Your task to perform on an android device: move a message to another label in the gmail app Image 0: 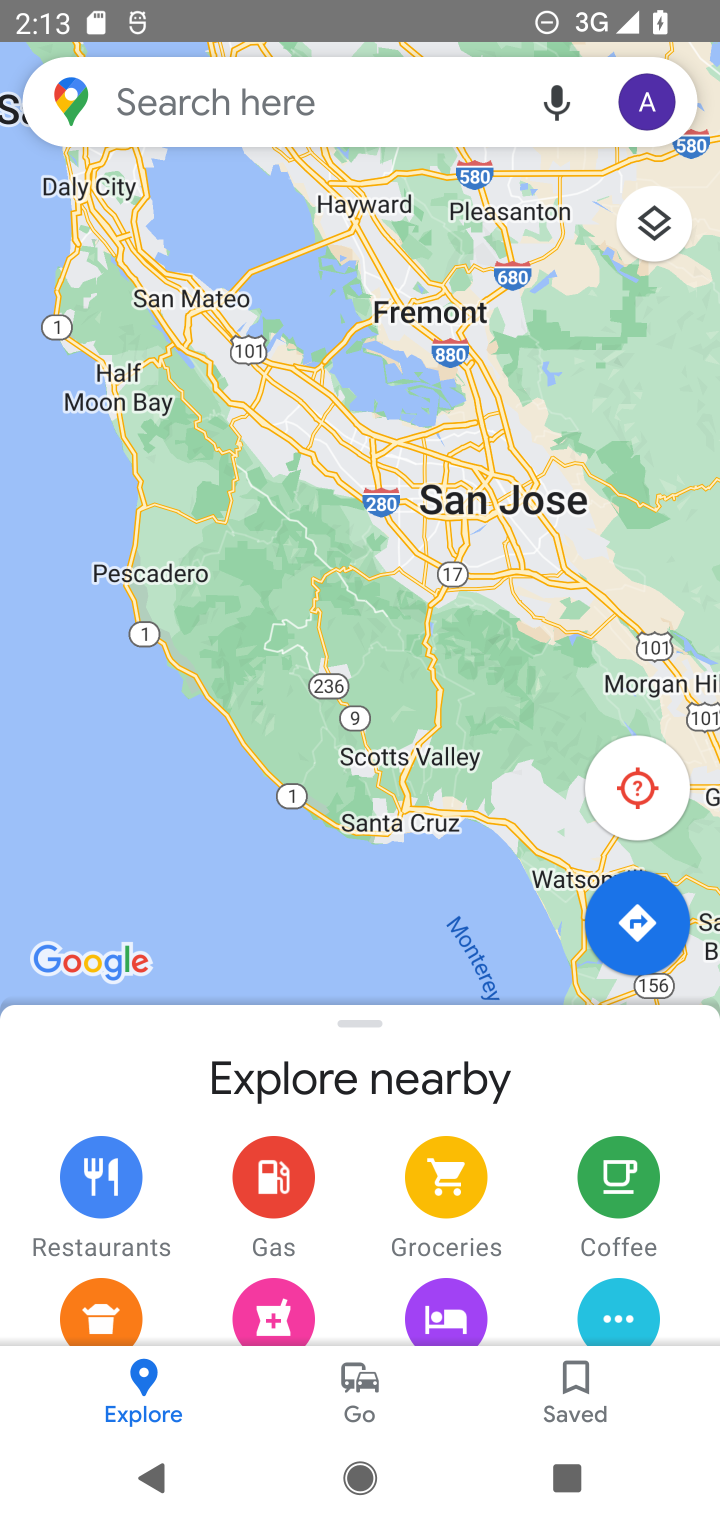
Step 0: press home button
Your task to perform on an android device: move a message to another label in the gmail app Image 1: 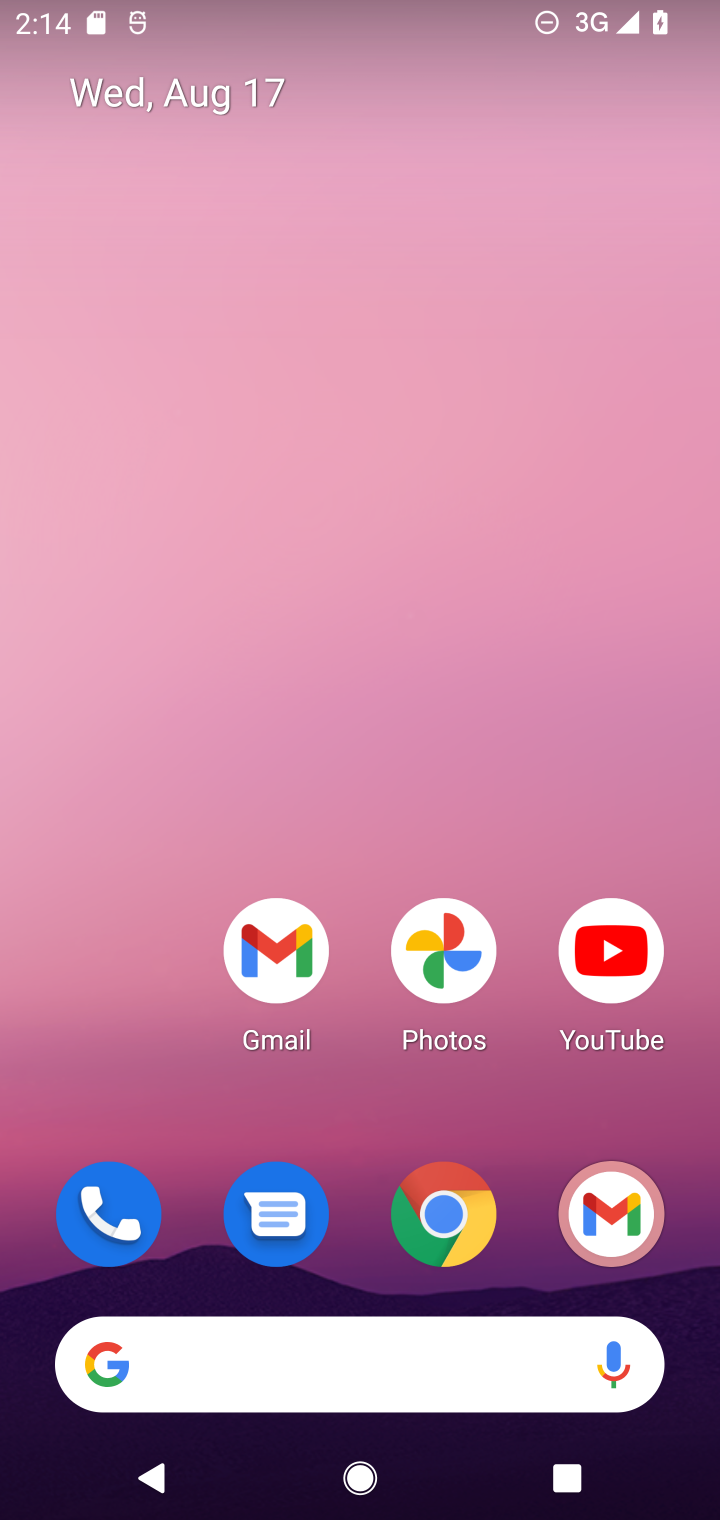
Step 1: click (283, 955)
Your task to perform on an android device: move a message to another label in the gmail app Image 2: 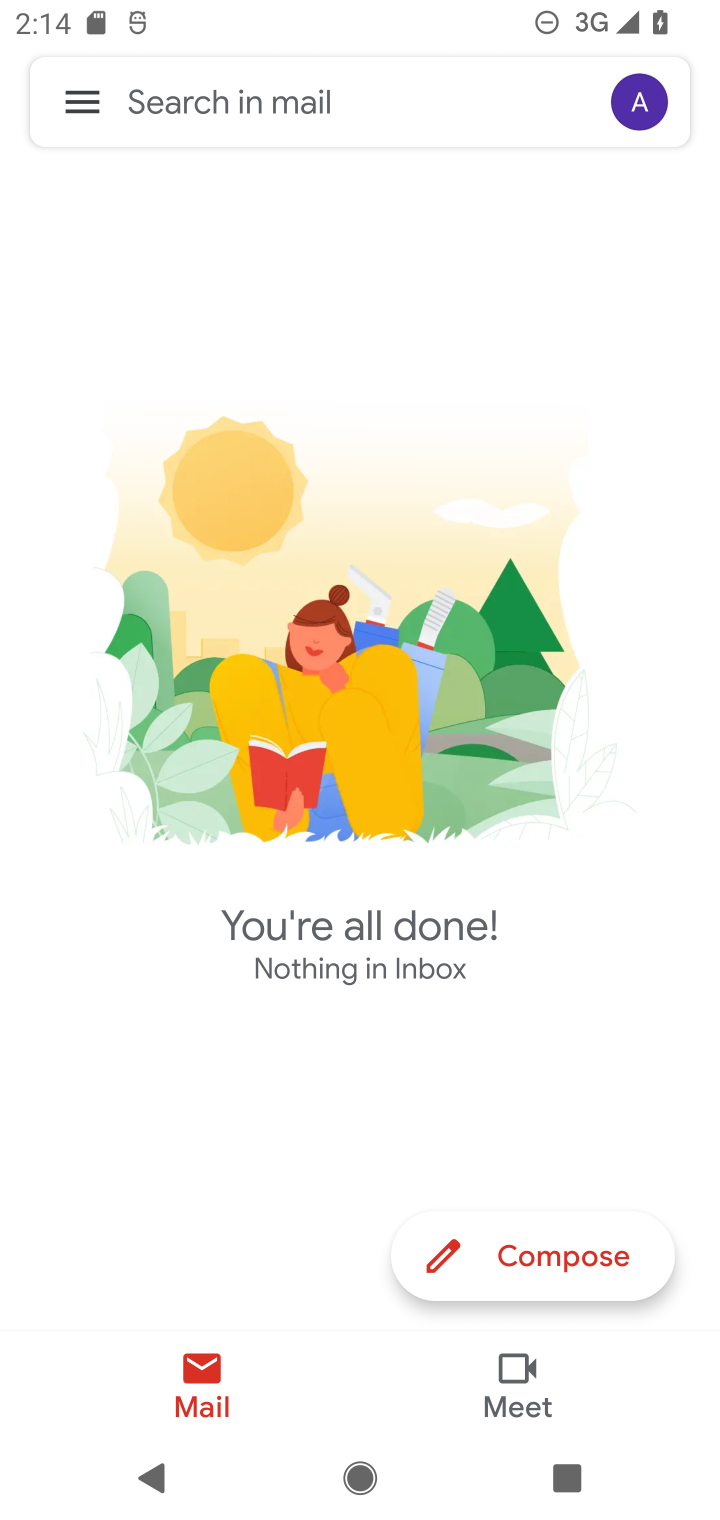
Step 2: click (86, 104)
Your task to perform on an android device: move a message to another label in the gmail app Image 3: 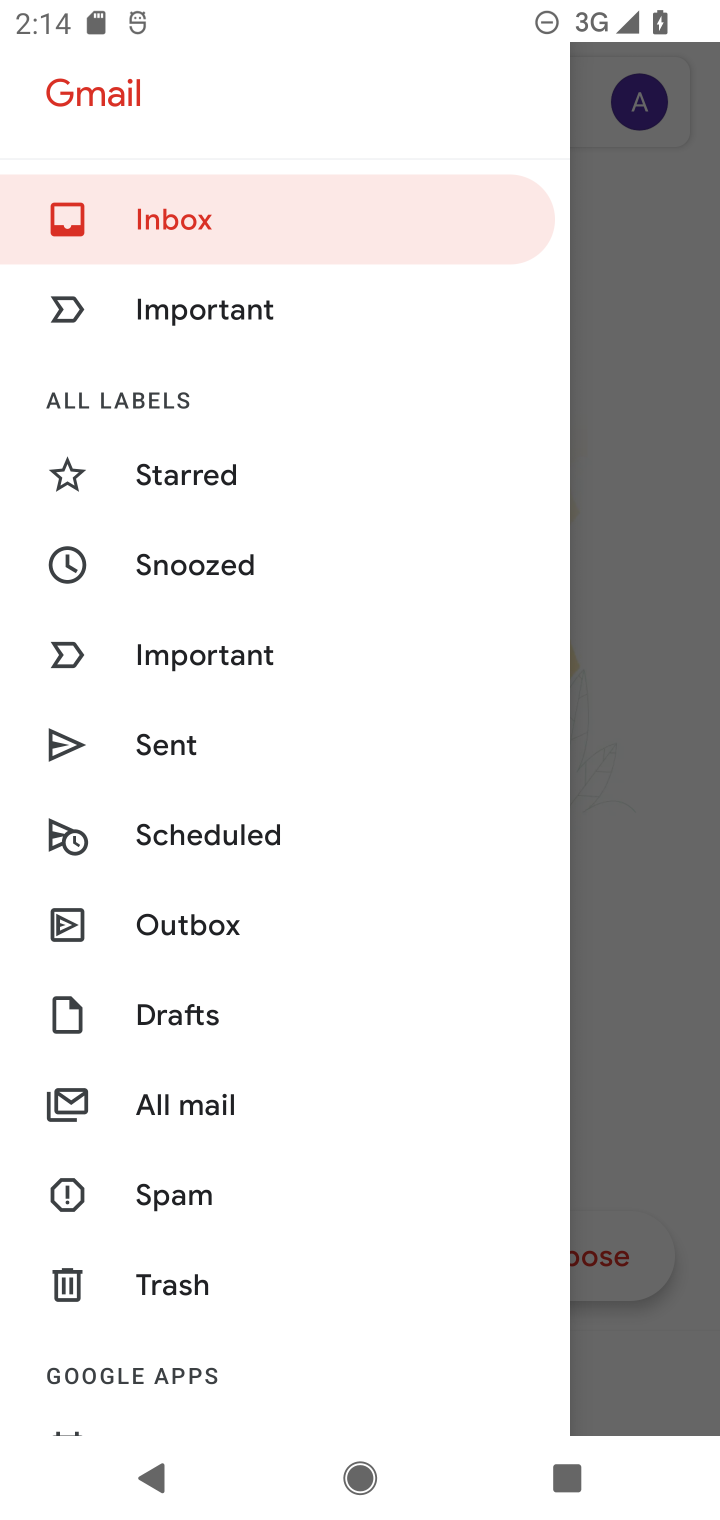
Step 3: click (186, 1099)
Your task to perform on an android device: move a message to another label in the gmail app Image 4: 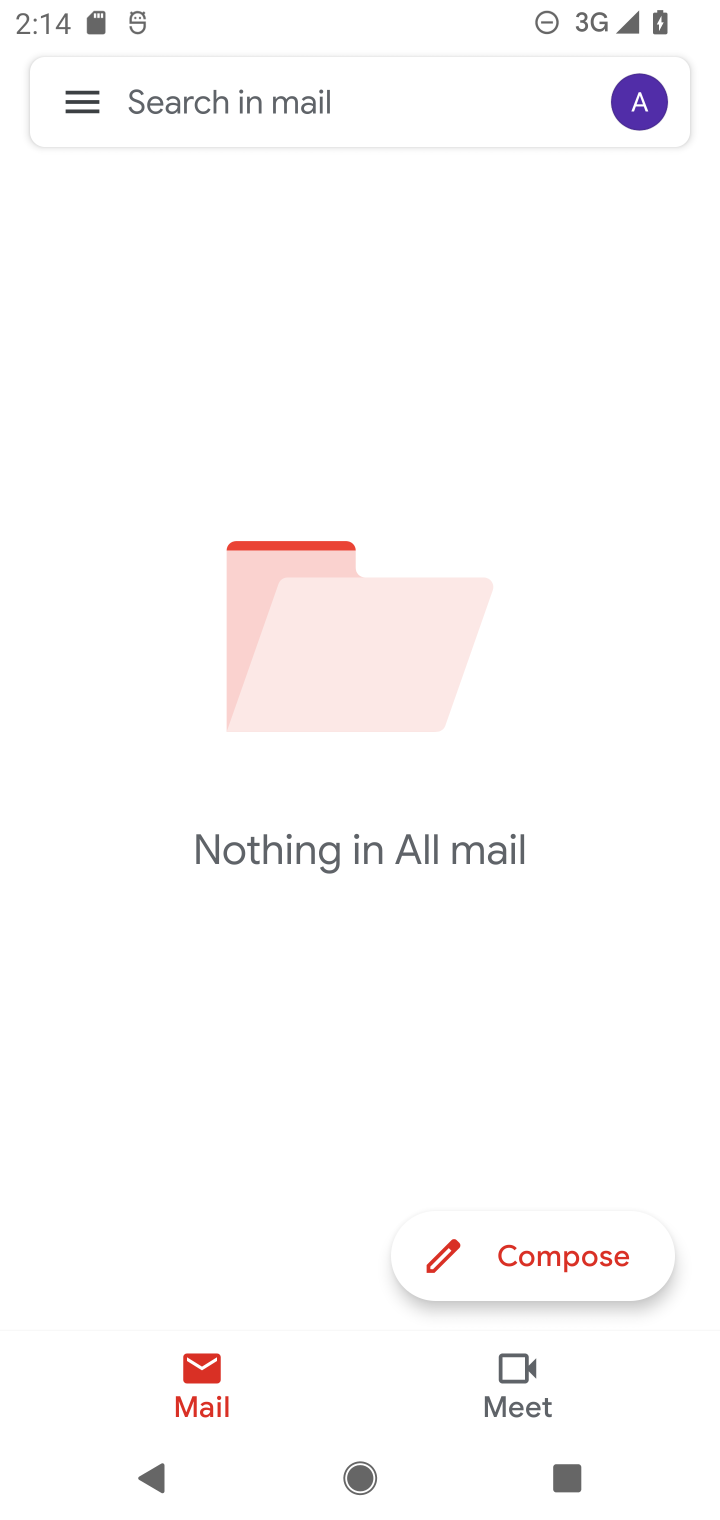
Step 4: task complete